Your task to perform on an android device: Search for the best rated tool bag on Lowe's. Image 0: 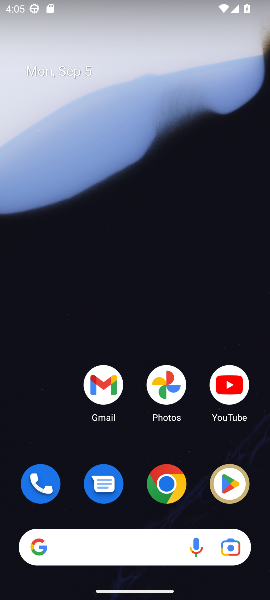
Step 0: click (169, 477)
Your task to perform on an android device: Search for the best rated tool bag on Lowe's. Image 1: 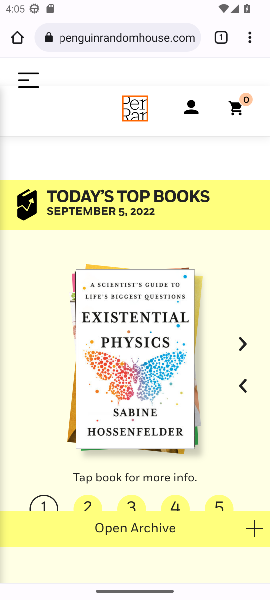
Step 1: click (170, 33)
Your task to perform on an android device: Search for the best rated tool bag on Lowe's. Image 2: 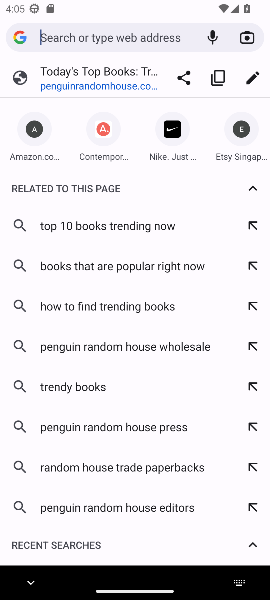
Step 2: type "Lowe's"
Your task to perform on an android device: Search for the best rated tool bag on Lowe's. Image 3: 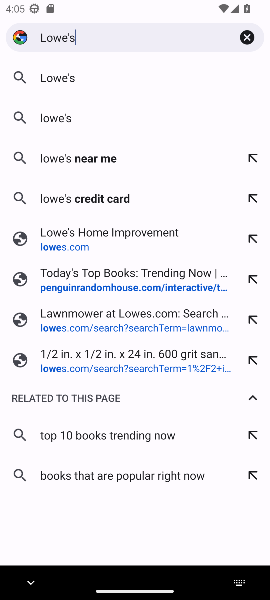
Step 3: press enter
Your task to perform on an android device: Search for the best rated tool bag on Lowe's. Image 4: 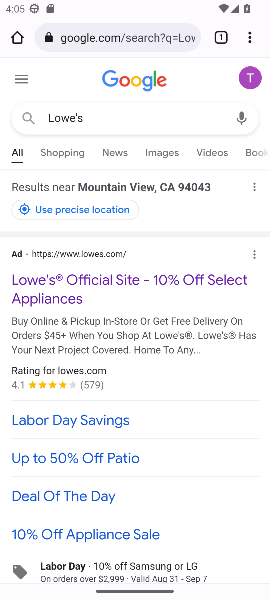
Step 4: drag from (134, 504) to (210, 214)
Your task to perform on an android device: Search for the best rated tool bag on Lowe's. Image 5: 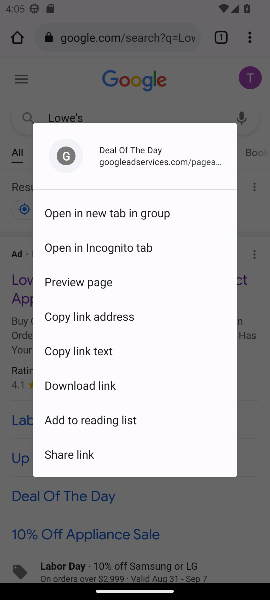
Step 5: click (257, 383)
Your task to perform on an android device: Search for the best rated tool bag on Lowe's. Image 6: 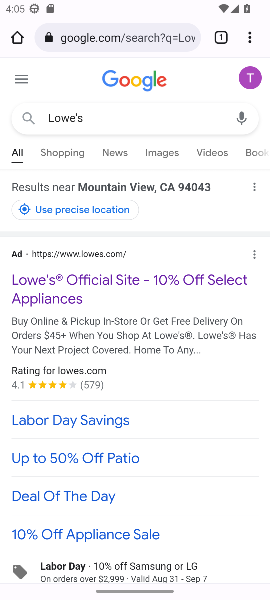
Step 6: drag from (44, 523) to (178, 162)
Your task to perform on an android device: Search for the best rated tool bag on Lowe's. Image 7: 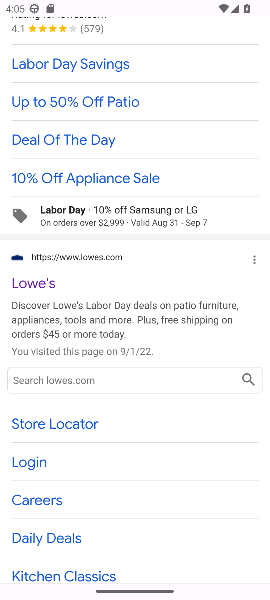
Step 7: click (39, 287)
Your task to perform on an android device: Search for the best rated tool bag on Lowe's. Image 8: 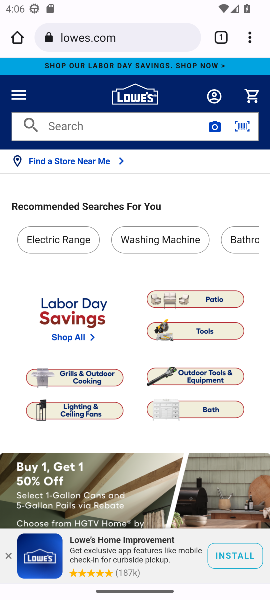
Step 8: click (95, 122)
Your task to perform on an android device: Search for the best rated tool bag on Lowe's. Image 9: 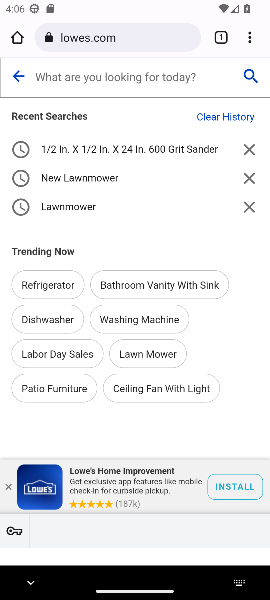
Step 9: type "tool bag"
Your task to perform on an android device: Search for the best rated tool bag on Lowe's. Image 10: 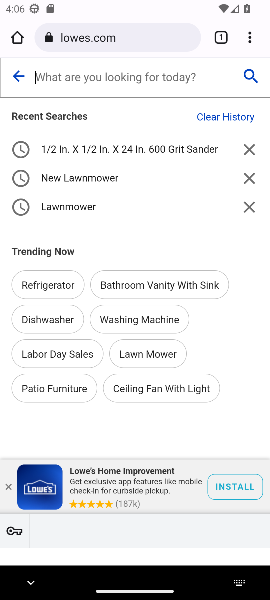
Step 10: press enter
Your task to perform on an android device: Search for the best rated tool bag on Lowe's. Image 11: 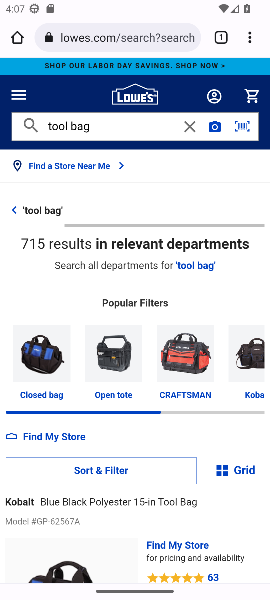
Step 11: task complete